Your task to perform on an android device: Open ESPN.com Image 0: 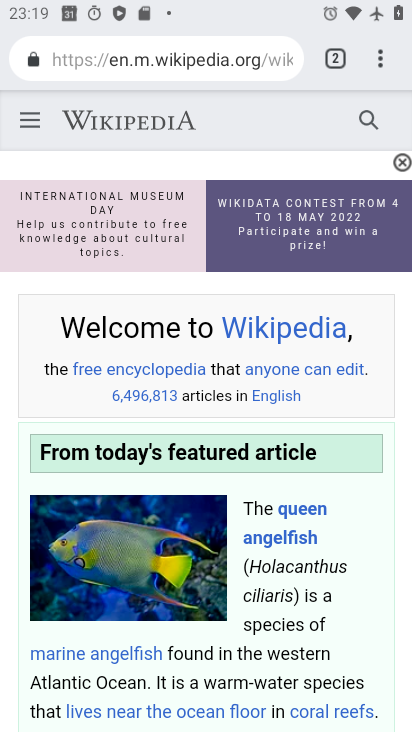
Step 0: press home button
Your task to perform on an android device: Open ESPN.com Image 1: 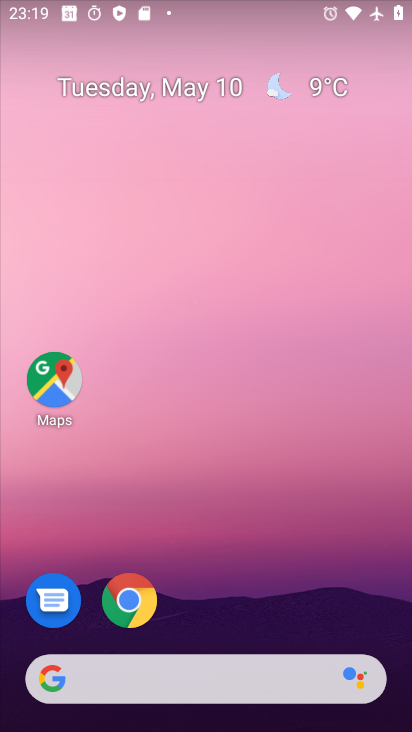
Step 1: drag from (333, 514) to (157, 15)
Your task to perform on an android device: Open ESPN.com Image 2: 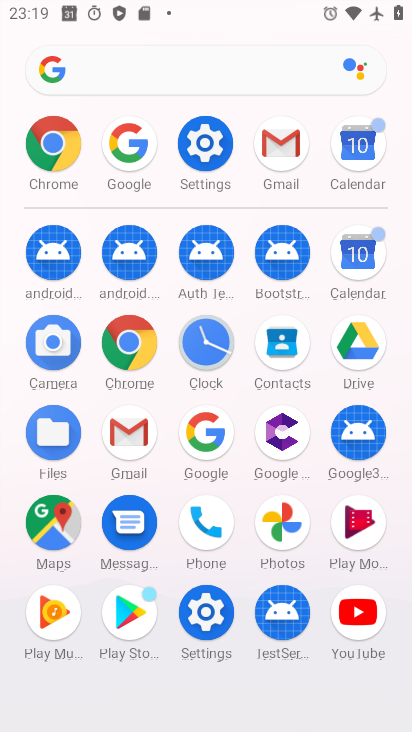
Step 2: click (49, 164)
Your task to perform on an android device: Open ESPN.com Image 3: 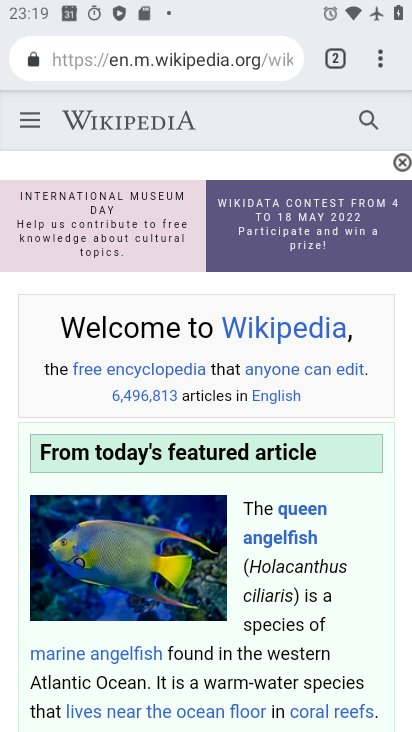
Step 3: click (210, 56)
Your task to perform on an android device: Open ESPN.com Image 4: 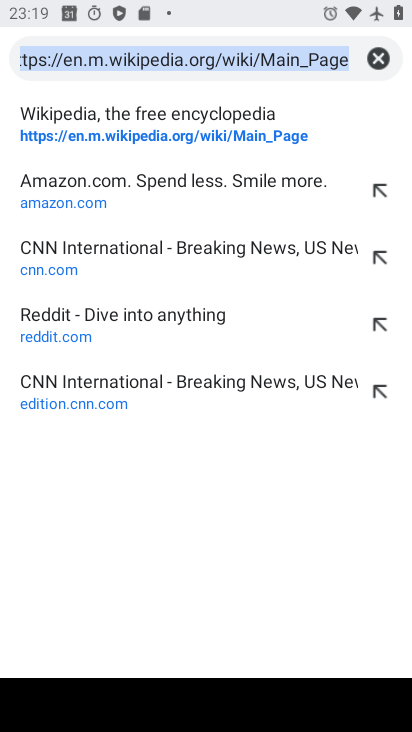
Step 4: click (381, 51)
Your task to perform on an android device: Open ESPN.com Image 5: 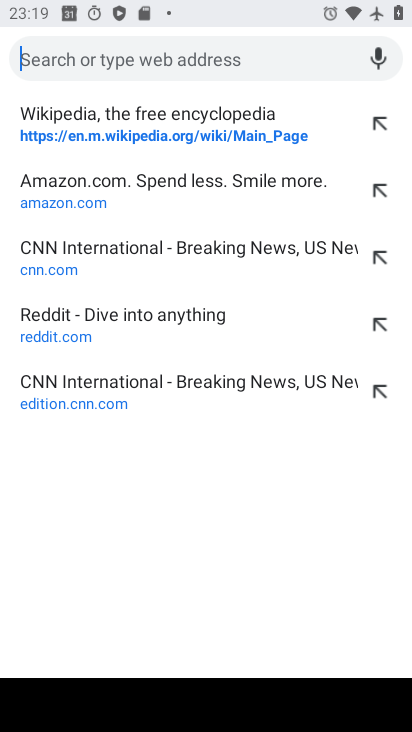
Step 5: type "espn"
Your task to perform on an android device: Open ESPN.com Image 6: 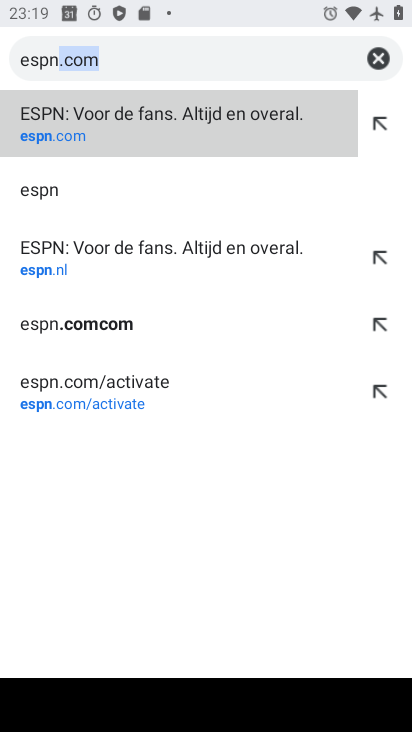
Step 6: click (134, 121)
Your task to perform on an android device: Open ESPN.com Image 7: 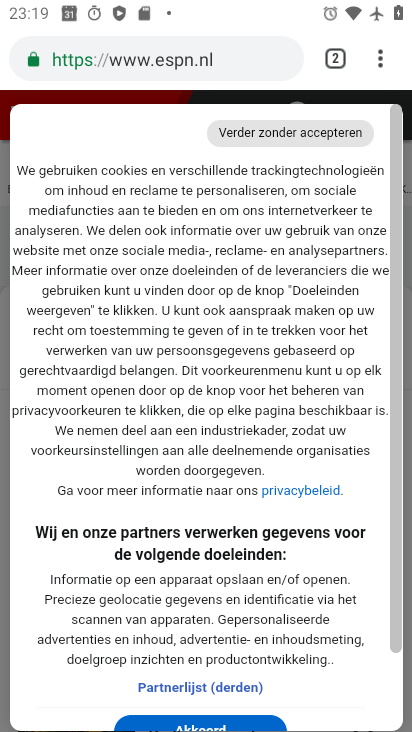
Step 7: task complete